Your task to perform on an android device: all mails in gmail Image 0: 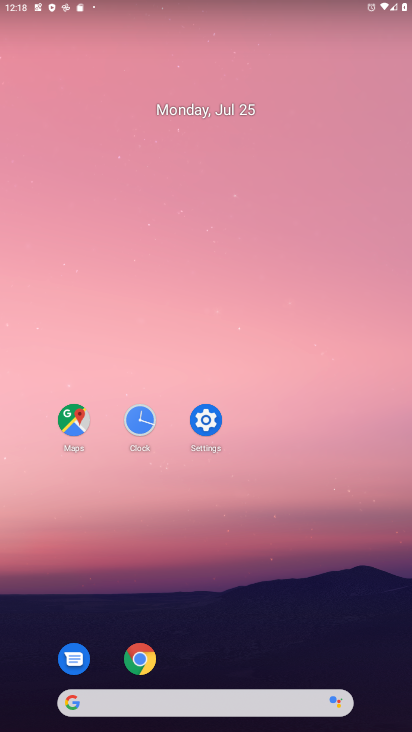
Step 0: click (275, 42)
Your task to perform on an android device: all mails in gmail Image 1: 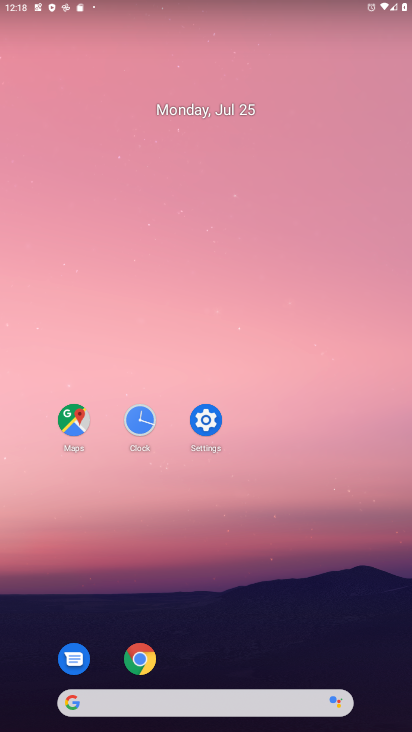
Step 1: drag from (381, 714) to (257, 83)
Your task to perform on an android device: all mails in gmail Image 2: 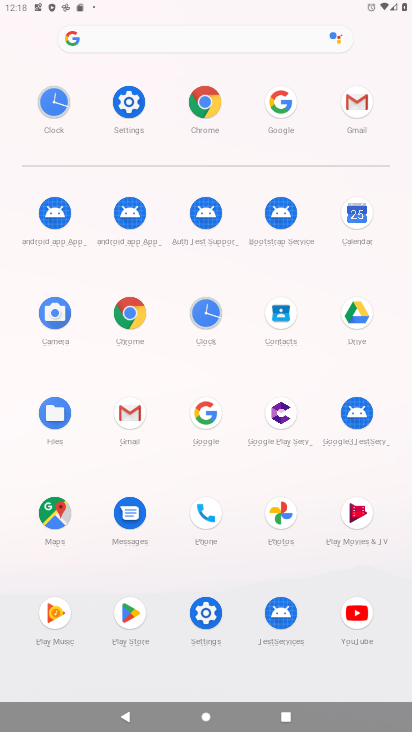
Step 2: click (115, 415)
Your task to perform on an android device: all mails in gmail Image 3: 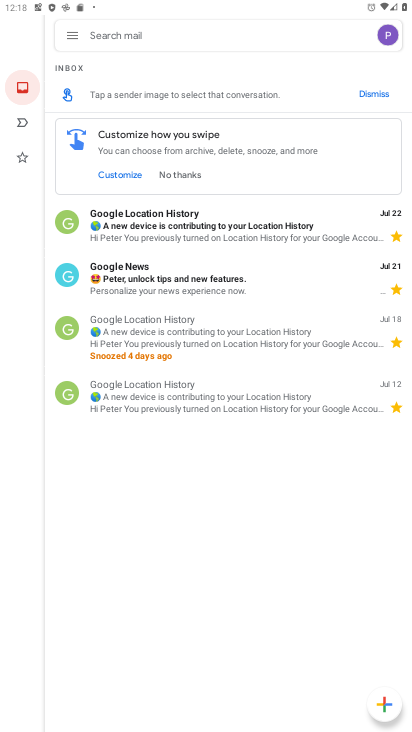
Step 3: click (70, 33)
Your task to perform on an android device: all mails in gmail Image 4: 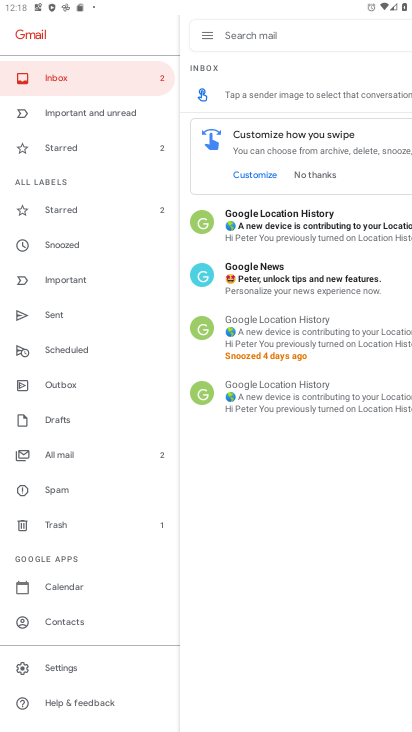
Step 4: click (60, 453)
Your task to perform on an android device: all mails in gmail Image 5: 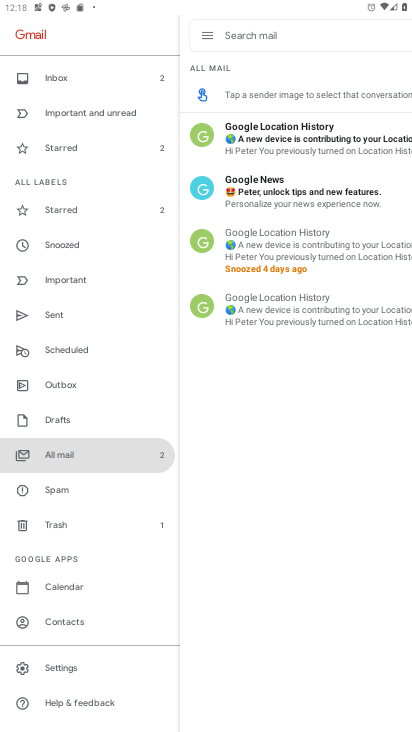
Step 5: task complete